Your task to perform on an android device: When is my next meeting? Image 0: 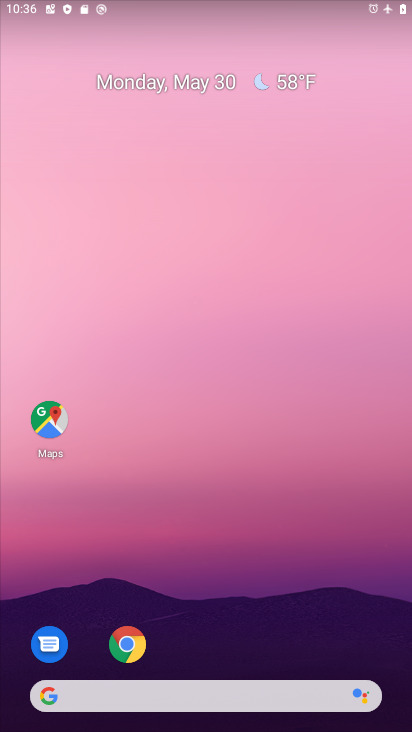
Step 0: drag from (339, 649) to (251, 128)
Your task to perform on an android device: When is my next meeting? Image 1: 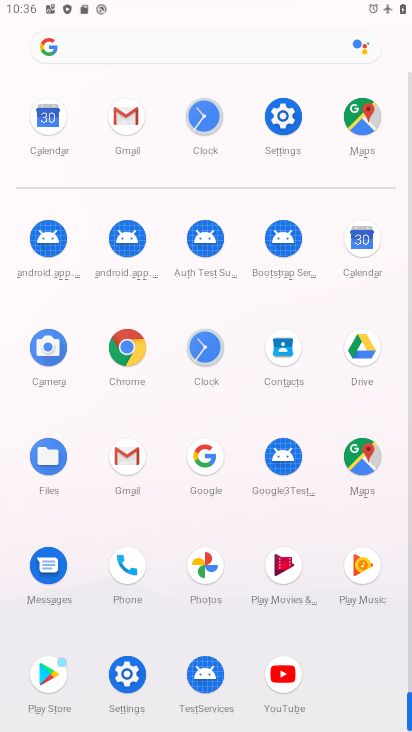
Step 1: click (363, 238)
Your task to perform on an android device: When is my next meeting? Image 2: 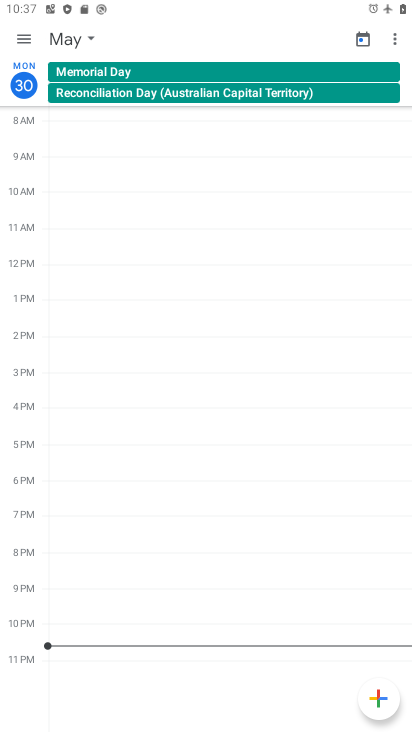
Step 2: click (21, 41)
Your task to perform on an android device: When is my next meeting? Image 3: 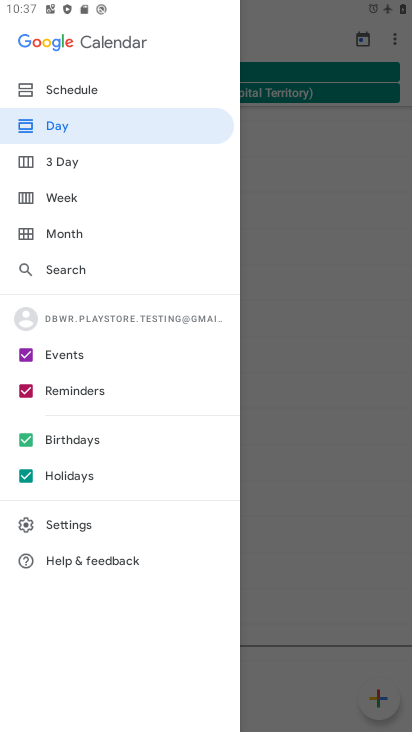
Step 3: click (53, 92)
Your task to perform on an android device: When is my next meeting? Image 4: 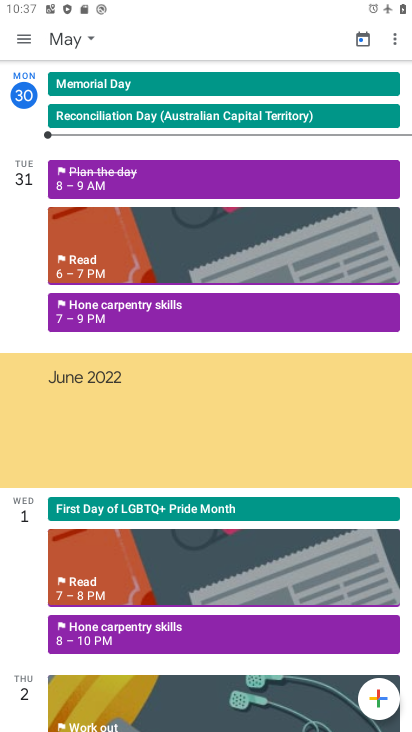
Step 4: task complete